Your task to perform on an android device: Open the map Image 0: 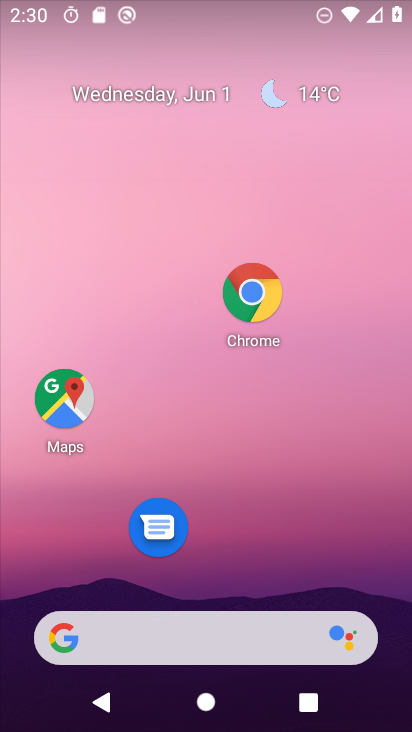
Step 0: click (299, 343)
Your task to perform on an android device: Open the map Image 1: 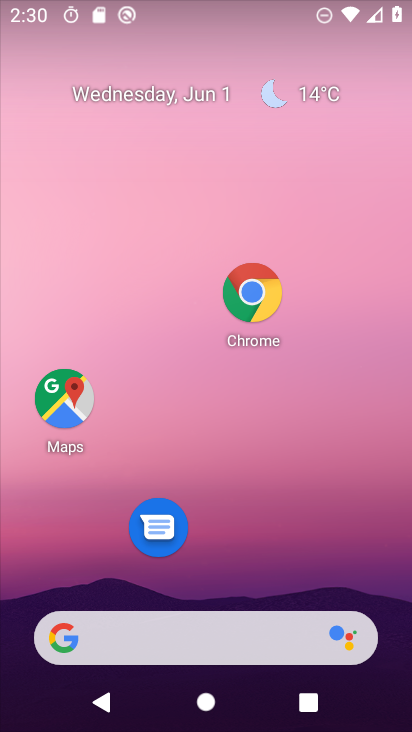
Step 1: drag from (246, 398) to (257, 185)
Your task to perform on an android device: Open the map Image 2: 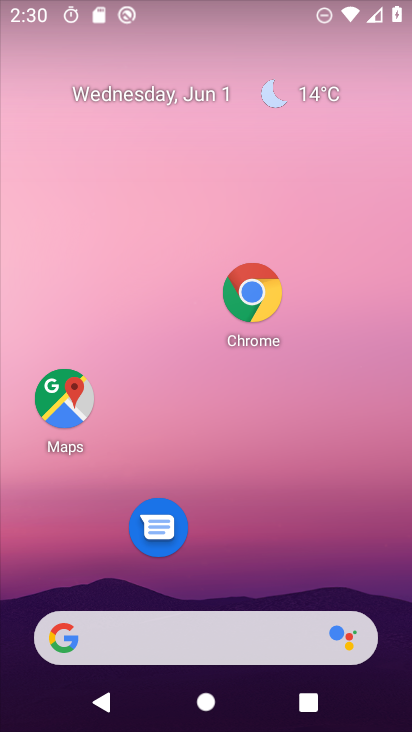
Step 2: drag from (219, 611) to (176, 127)
Your task to perform on an android device: Open the map Image 3: 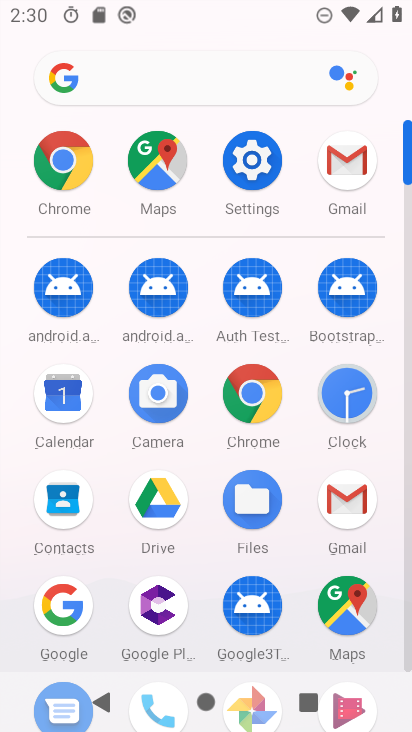
Step 3: click (354, 613)
Your task to perform on an android device: Open the map Image 4: 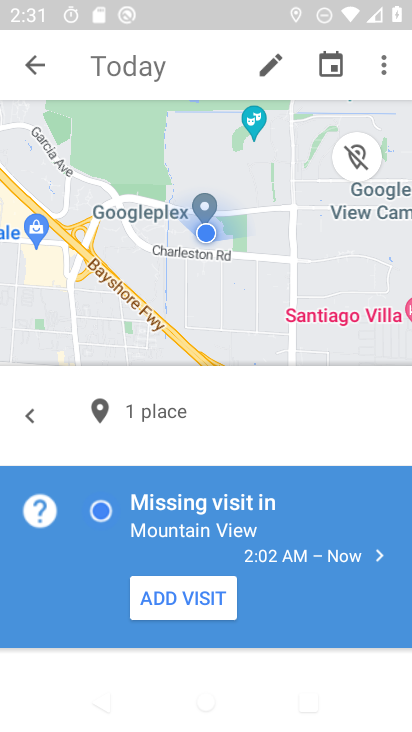
Step 4: task complete